Your task to perform on an android device: open device folders in google photos Image 0: 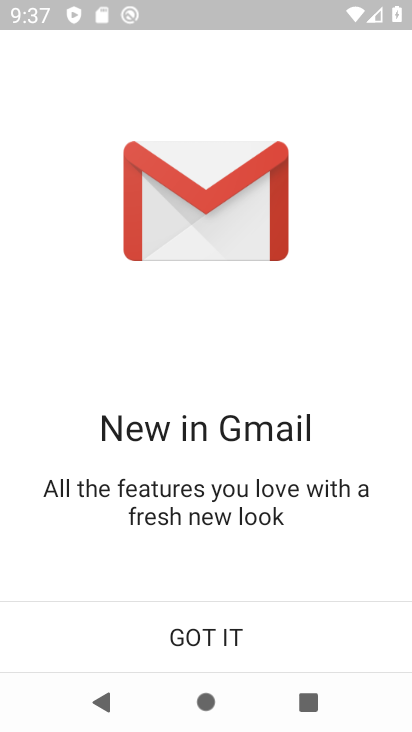
Step 0: click (205, 639)
Your task to perform on an android device: open device folders in google photos Image 1: 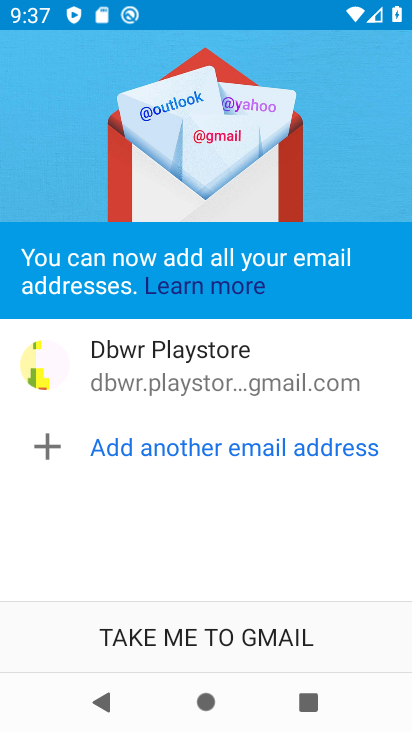
Step 1: click (205, 639)
Your task to perform on an android device: open device folders in google photos Image 2: 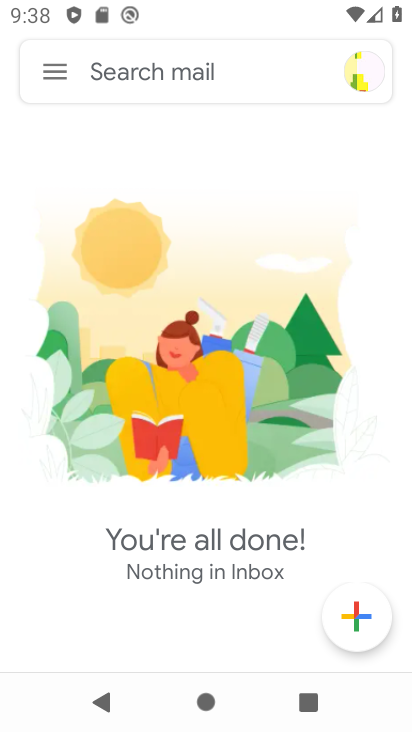
Step 2: press home button
Your task to perform on an android device: open device folders in google photos Image 3: 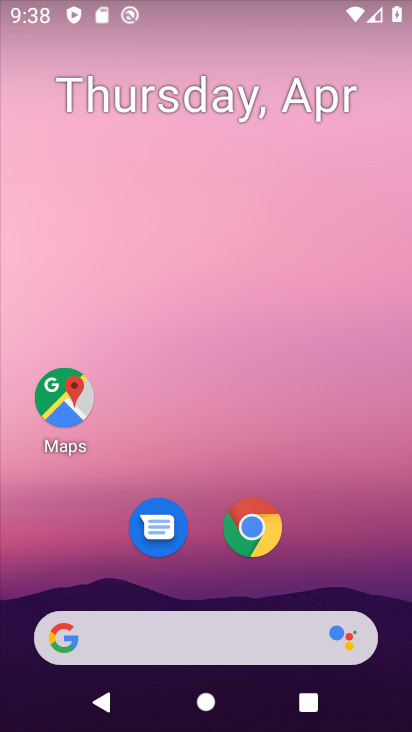
Step 3: drag from (196, 528) to (261, 146)
Your task to perform on an android device: open device folders in google photos Image 4: 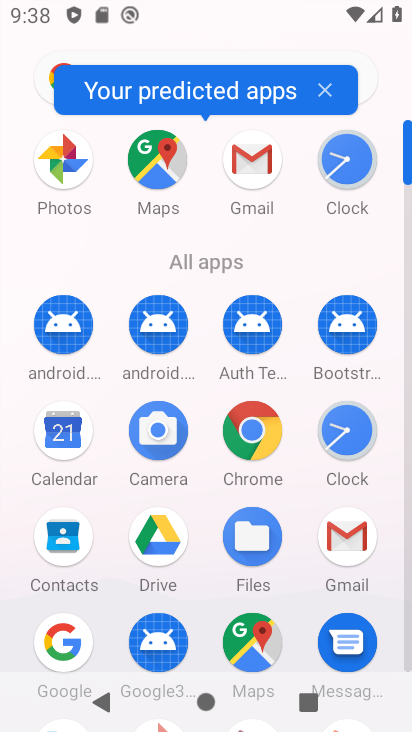
Step 4: click (61, 167)
Your task to perform on an android device: open device folders in google photos Image 5: 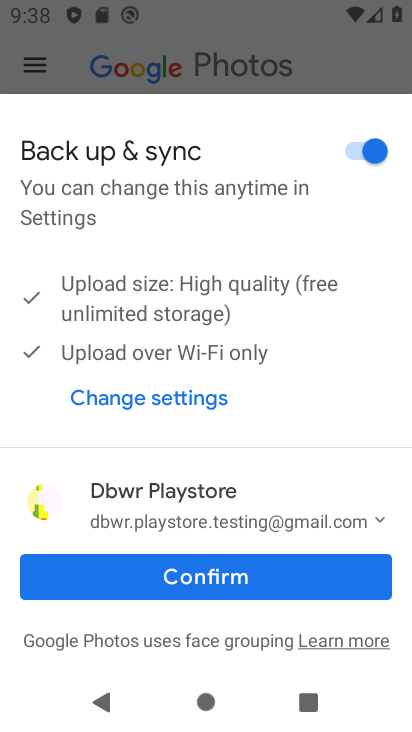
Step 5: click (209, 579)
Your task to perform on an android device: open device folders in google photos Image 6: 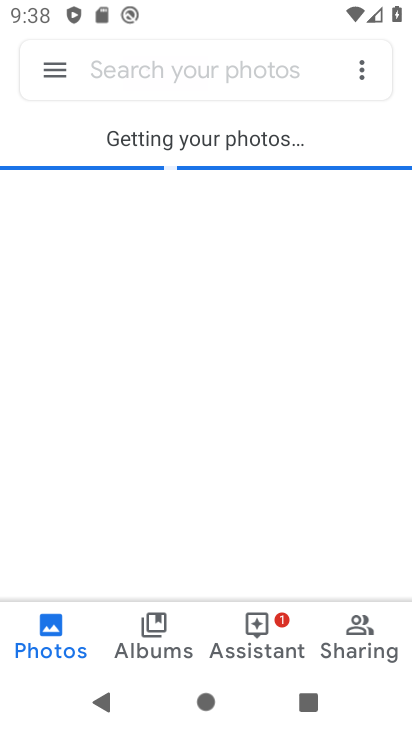
Step 6: click (56, 69)
Your task to perform on an android device: open device folders in google photos Image 7: 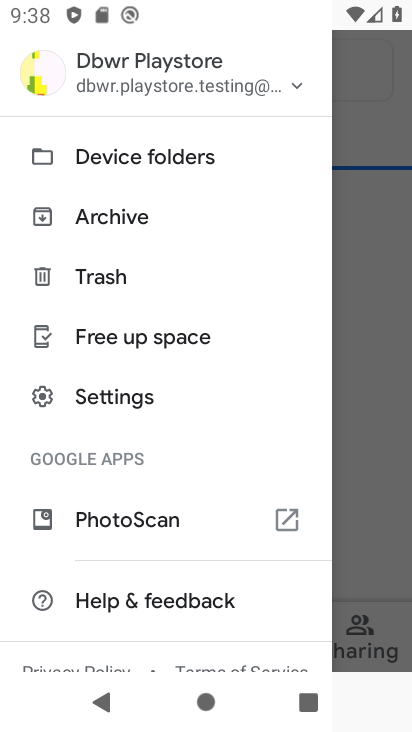
Step 7: click (151, 162)
Your task to perform on an android device: open device folders in google photos Image 8: 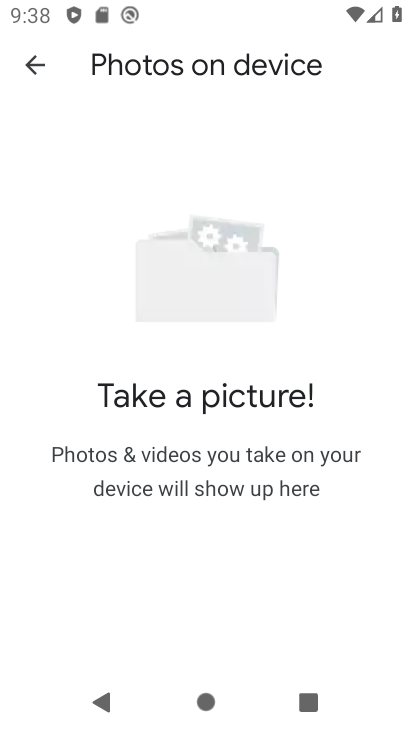
Step 8: task complete